Your task to perform on an android device: Go to Google Image 0: 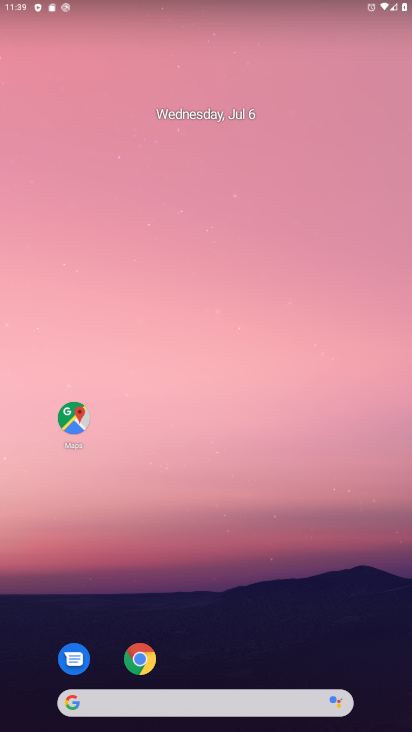
Step 0: click (91, 703)
Your task to perform on an android device: Go to Google Image 1: 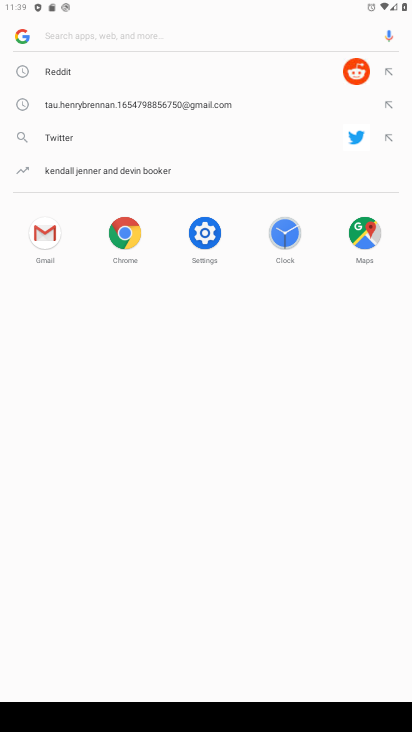
Step 1: task complete